Your task to perform on an android device: toggle data saver in the chrome app Image 0: 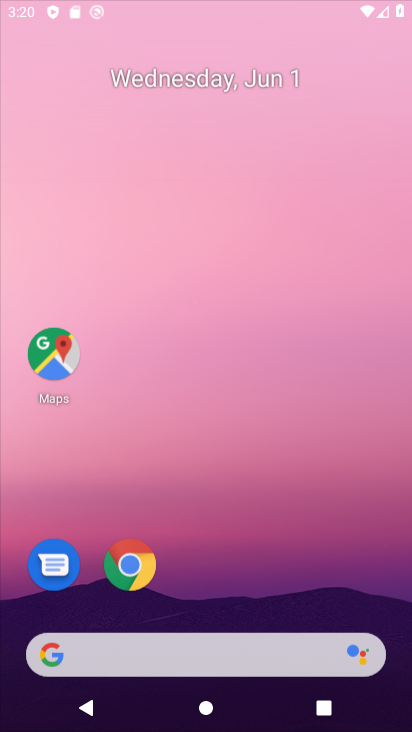
Step 0: click (284, 133)
Your task to perform on an android device: toggle data saver in the chrome app Image 1: 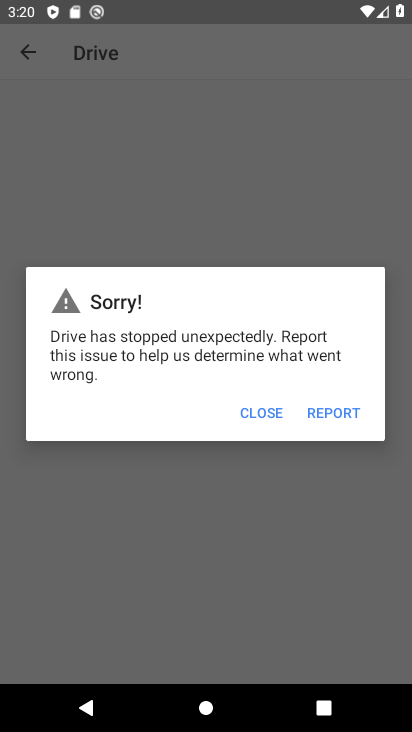
Step 1: press home button
Your task to perform on an android device: toggle data saver in the chrome app Image 2: 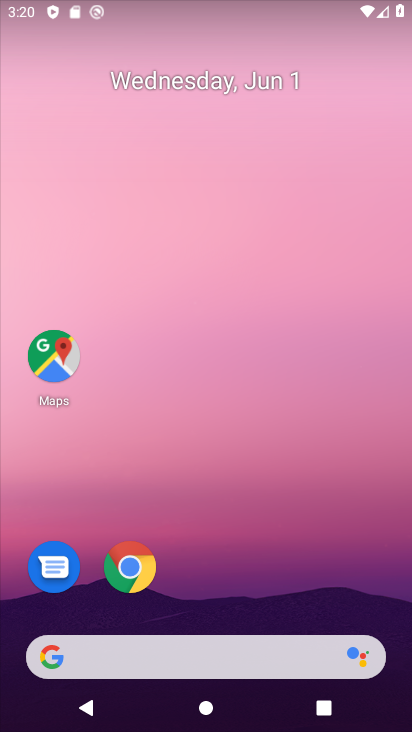
Step 2: click (140, 586)
Your task to perform on an android device: toggle data saver in the chrome app Image 3: 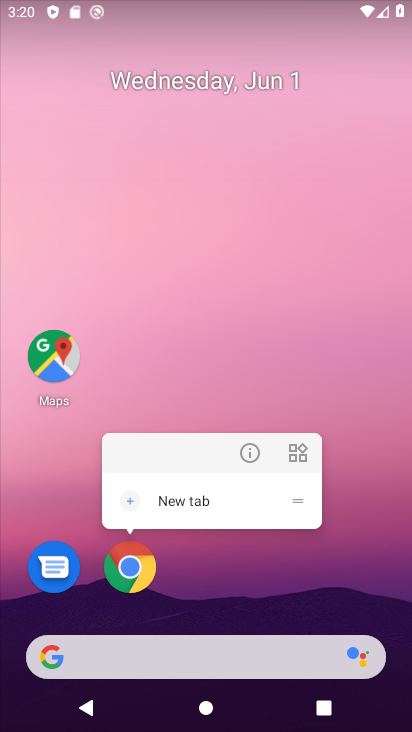
Step 3: click (132, 559)
Your task to perform on an android device: toggle data saver in the chrome app Image 4: 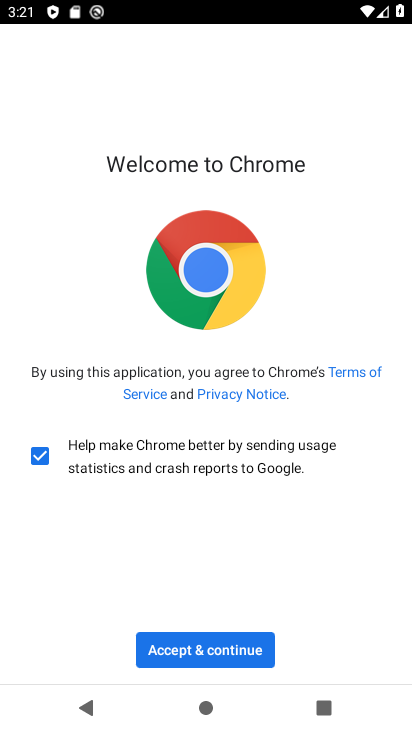
Step 4: click (196, 650)
Your task to perform on an android device: toggle data saver in the chrome app Image 5: 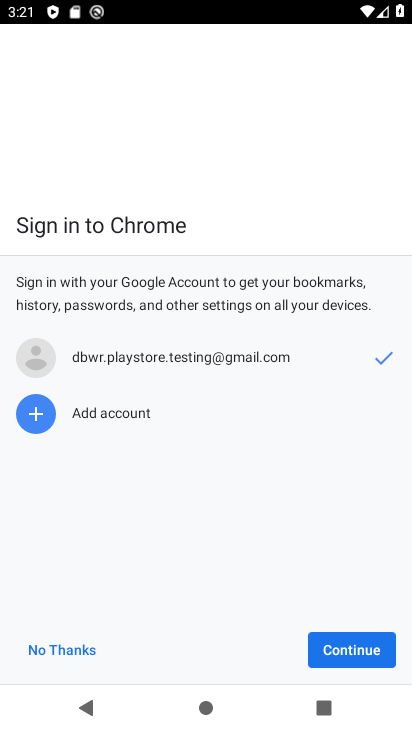
Step 5: click (325, 649)
Your task to perform on an android device: toggle data saver in the chrome app Image 6: 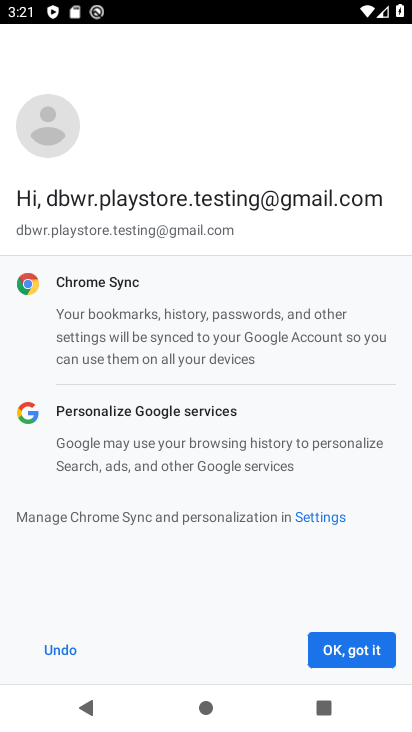
Step 6: click (336, 650)
Your task to perform on an android device: toggle data saver in the chrome app Image 7: 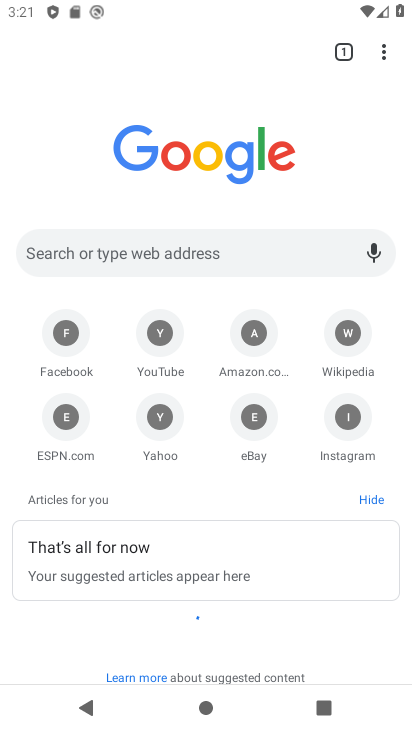
Step 7: click (384, 56)
Your task to perform on an android device: toggle data saver in the chrome app Image 8: 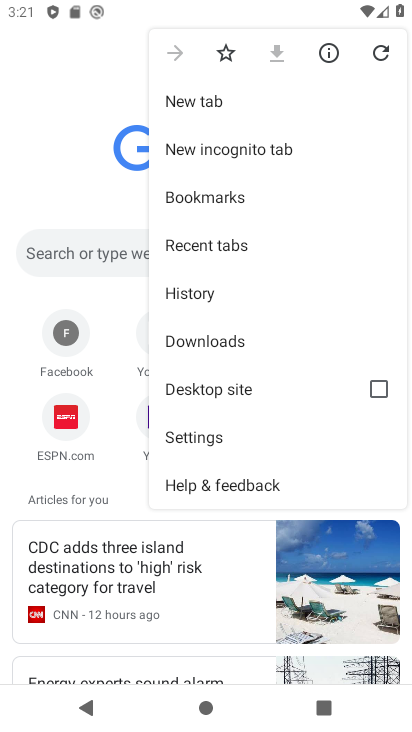
Step 8: click (219, 438)
Your task to perform on an android device: toggle data saver in the chrome app Image 9: 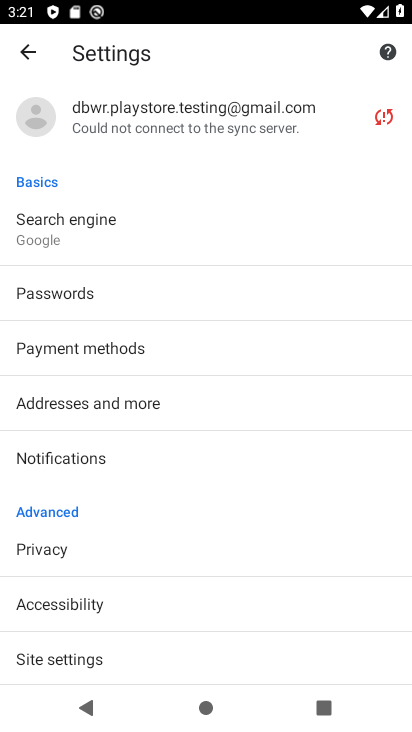
Step 9: drag from (101, 626) to (101, 325)
Your task to perform on an android device: toggle data saver in the chrome app Image 10: 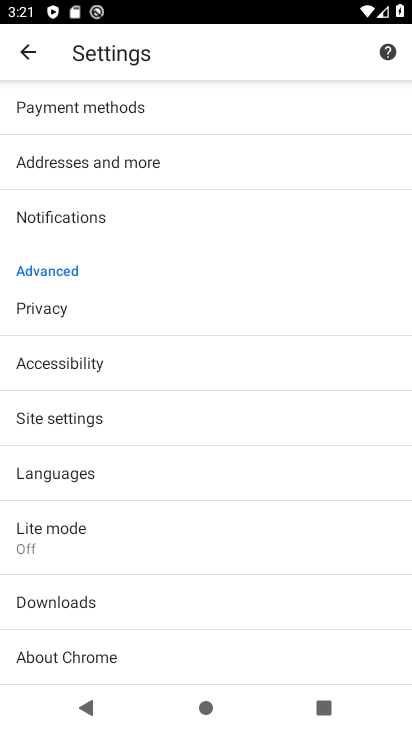
Step 10: click (49, 546)
Your task to perform on an android device: toggle data saver in the chrome app Image 11: 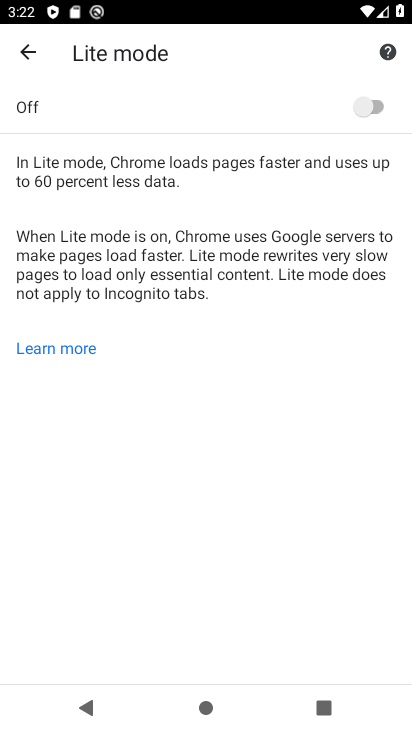
Step 11: click (376, 103)
Your task to perform on an android device: toggle data saver in the chrome app Image 12: 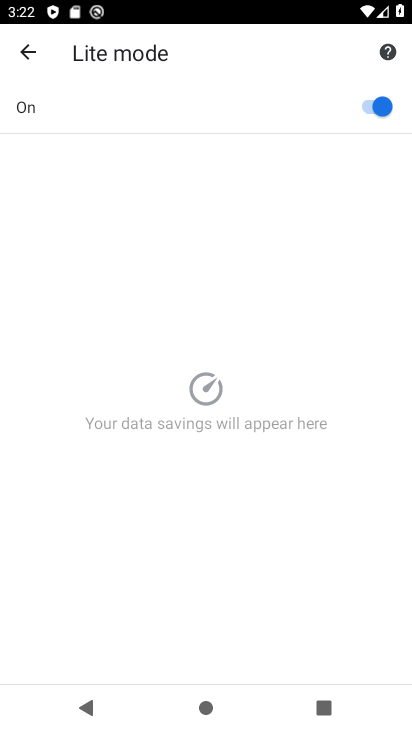
Step 12: task complete